Your task to perform on an android device: Is it going to rain today? Image 0: 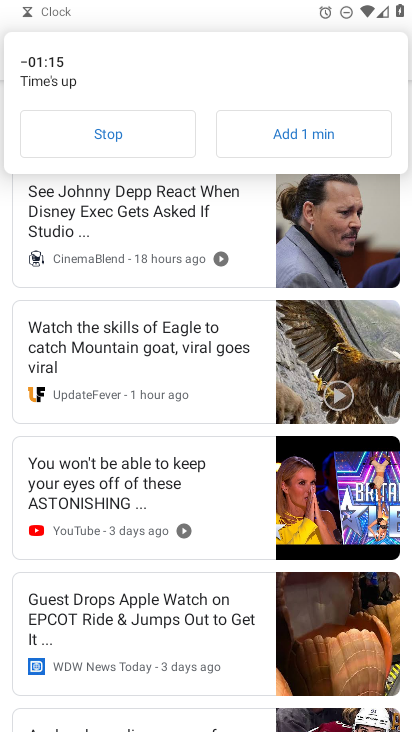
Step 0: press home button
Your task to perform on an android device: Is it going to rain today? Image 1: 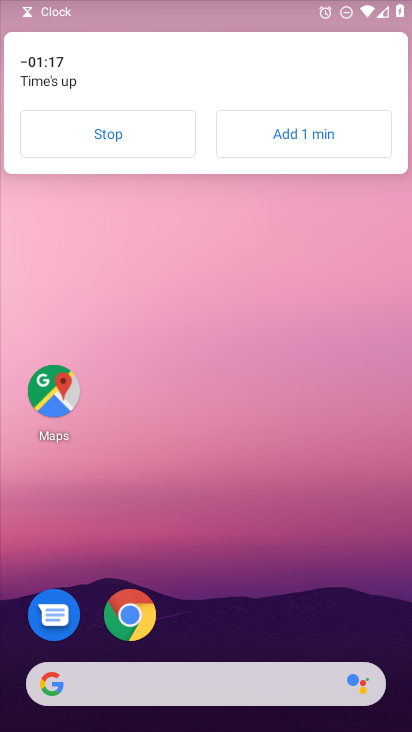
Step 1: click (133, 134)
Your task to perform on an android device: Is it going to rain today? Image 2: 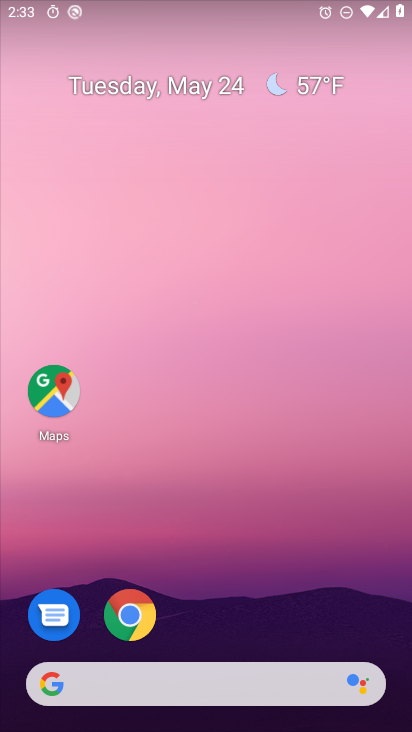
Step 2: drag from (207, 660) to (193, 269)
Your task to perform on an android device: Is it going to rain today? Image 3: 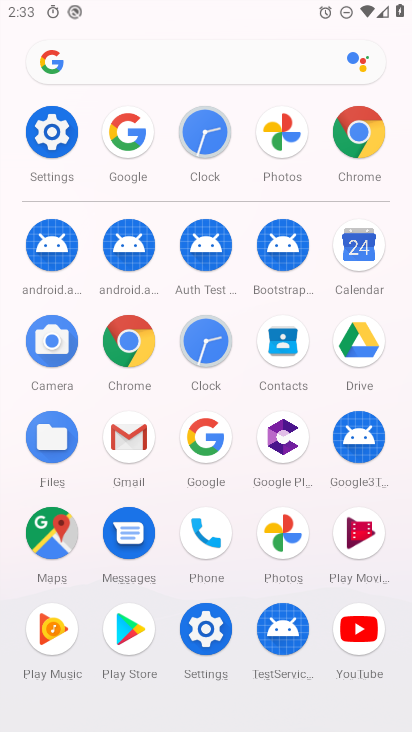
Step 3: click (202, 433)
Your task to perform on an android device: Is it going to rain today? Image 4: 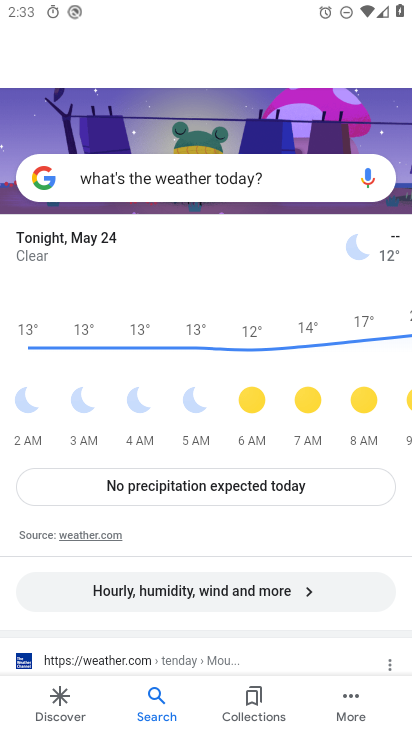
Step 4: click (288, 173)
Your task to perform on an android device: Is it going to rain today? Image 5: 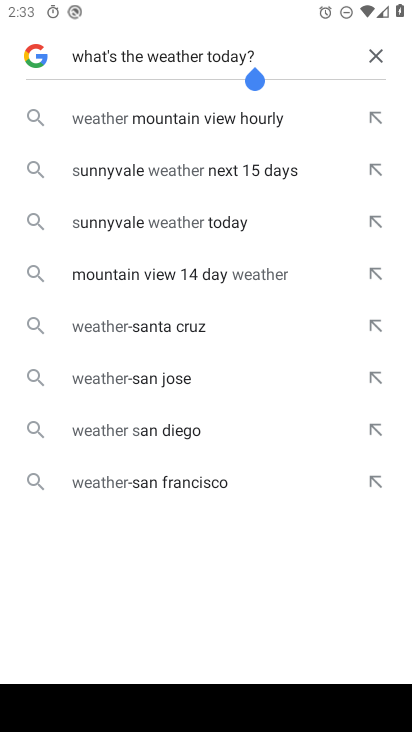
Step 5: click (365, 59)
Your task to perform on an android device: Is it going to rain today? Image 6: 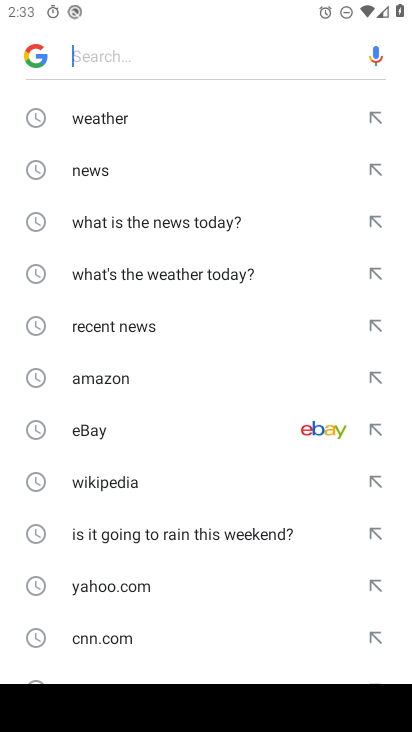
Step 6: drag from (110, 633) to (140, 281)
Your task to perform on an android device: Is it going to rain today? Image 7: 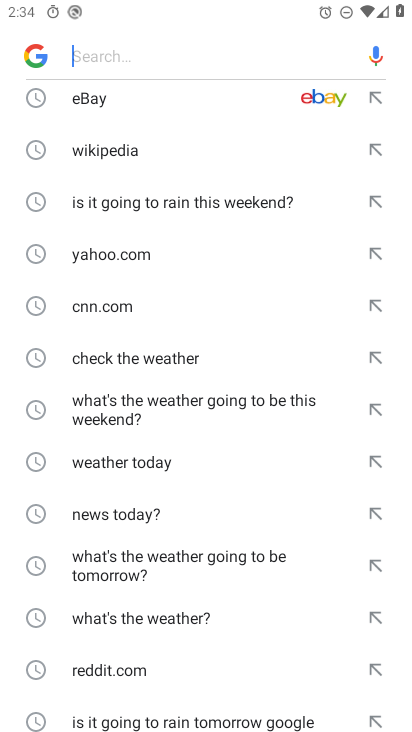
Step 7: drag from (96, 699) to (123, 372)
Your task to perform on an android device: Is it going to rain today? Image 8: 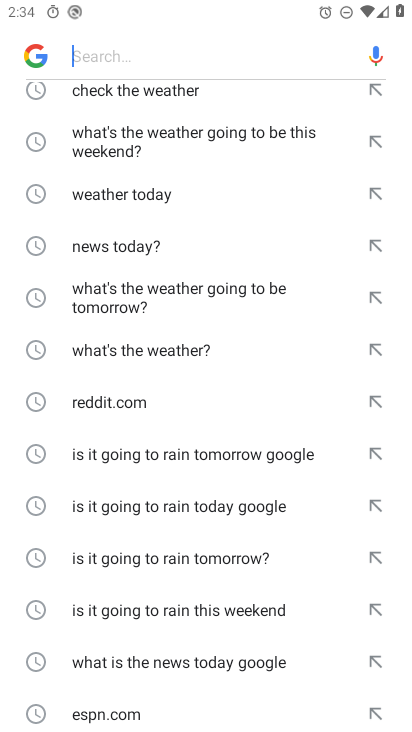
Step 8: drag from (201, 696) to (179, 366)
Your task to perform on an android device: Is it going to rain today? Image 9: 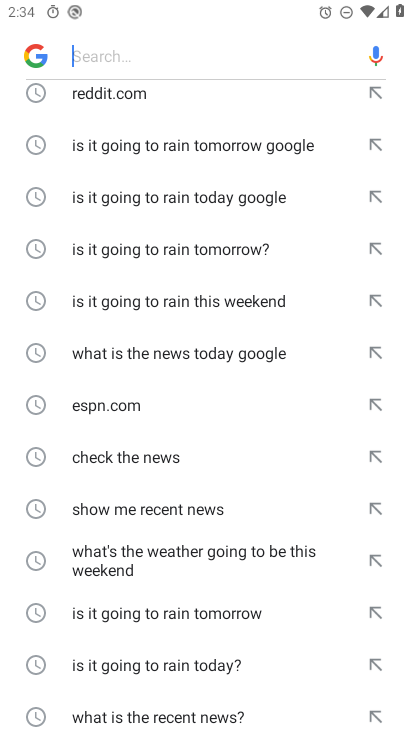
Step 9: click (203, 667)
Your task to perform on an android device: Is it going to rain today? Image 10: 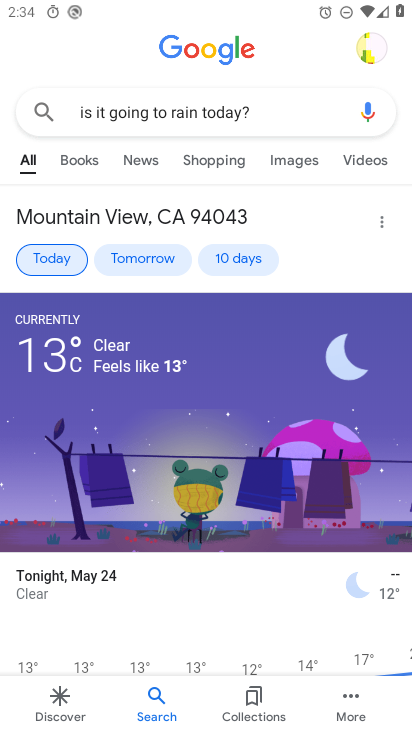
Step 10: task complete